Your task to perform on an android device: check out phone information Image 0: 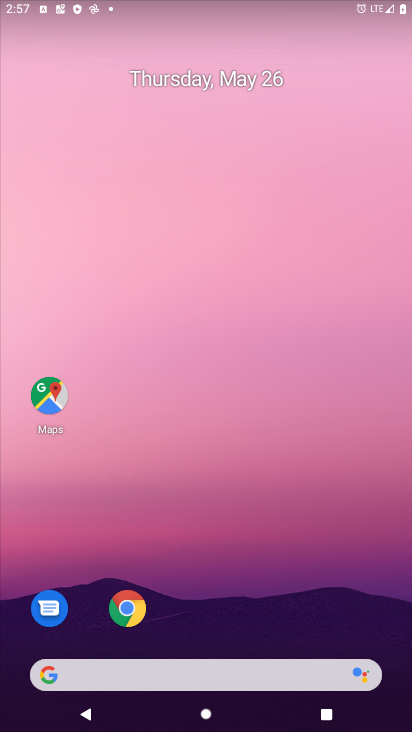
Step 0: drag from (340, 625) to (281, 119)
Your task to perform on an android device: check out phone information Image 1: 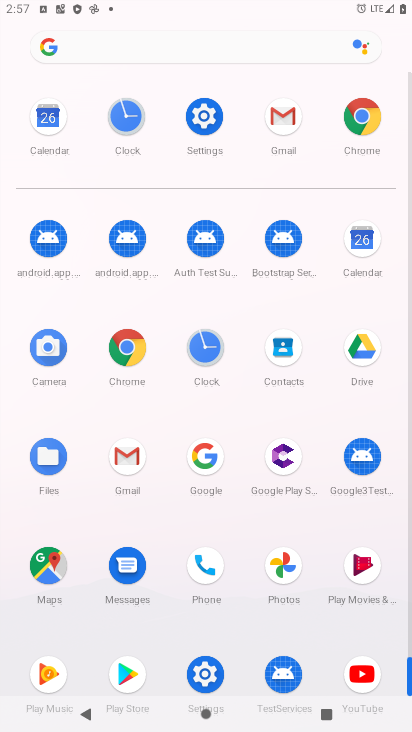
Step 1: click (205, 672)
Your task to perform on an android device: check out phone information Image 2: 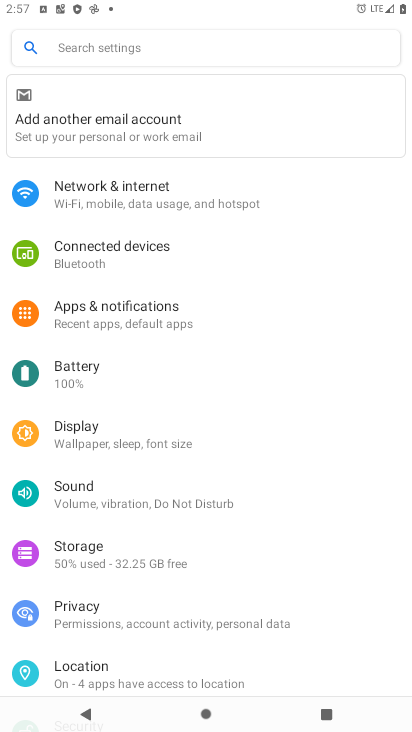
Step 2: drag from (316, 631) to (281, 147)
Your task to perform on an android device: check out phone information Image 3: 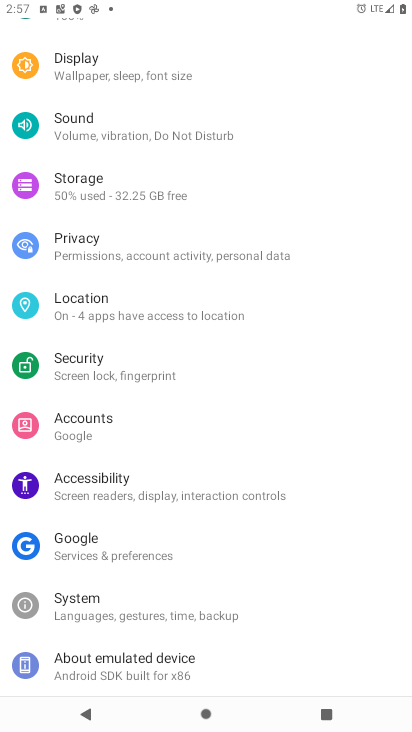
Step 3: click (112, 664)
Your task to perform on an android device: check out phone information Image 4: 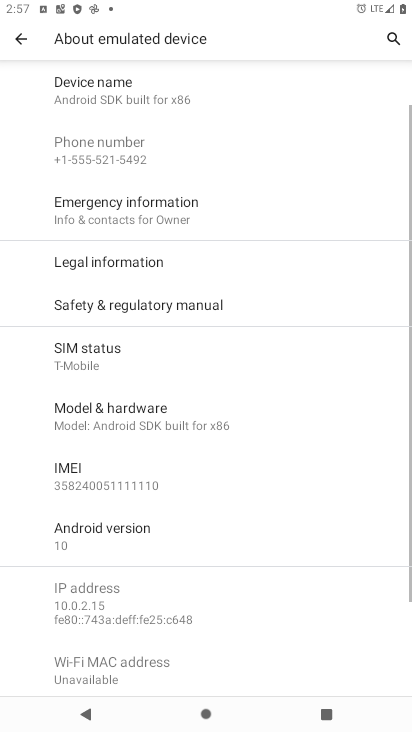
Step 4: task complete